Your task to perform on an android device: Go to notification settings Image 0: 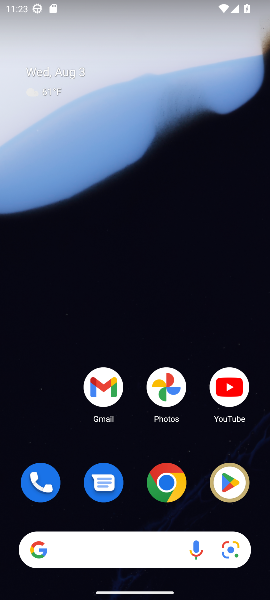
Step 0: drag from (117, 533) to (106, 157)
Your task to perform on an android device: Go to notification settings Image 1: 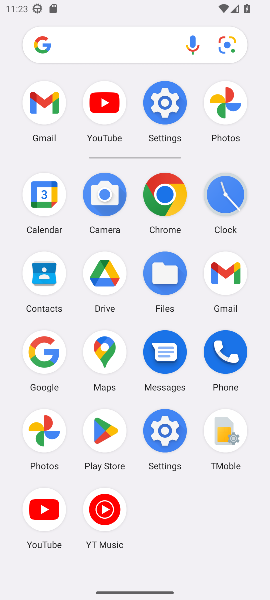
Step 1: click (175, 132)
Your task to perform on an android device: Go to notification settings Image 2: 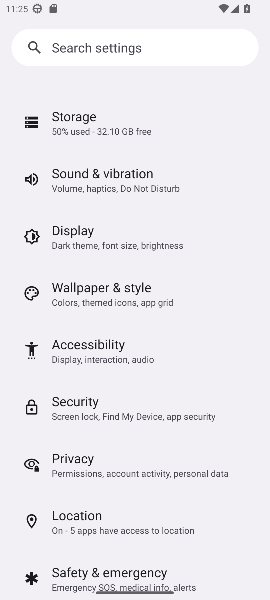
Step 2: task complete